Your task to perform on an android device: open app "Walmart Shopping & Grocery" (install if not already installed) Image 0: 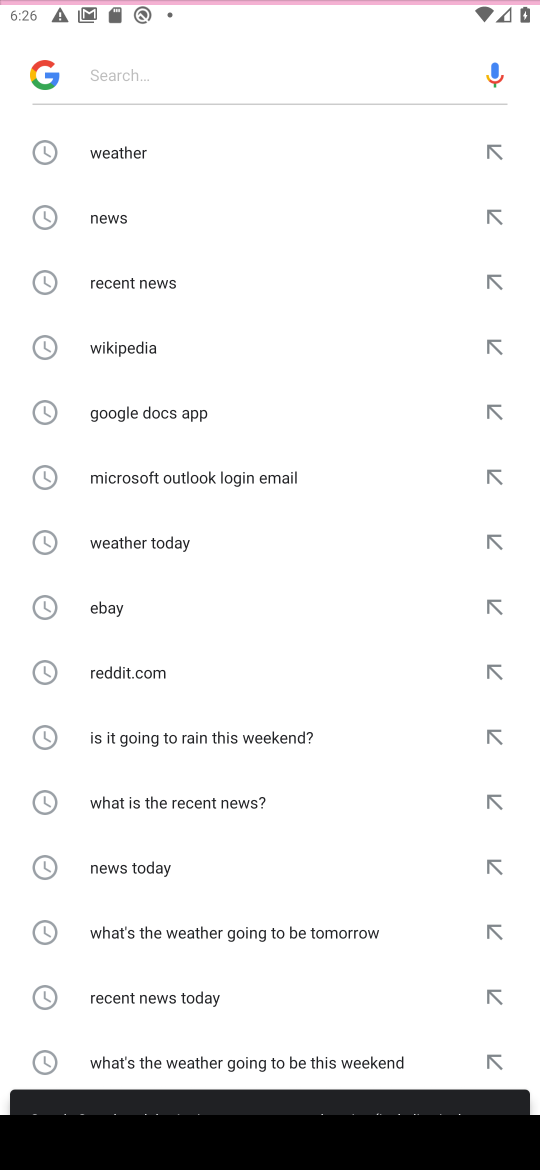
Step 0: press home button
Your task to perform on an android device: open app "Walmart Shopping & Grocery" (install if not already installed) Image 1: 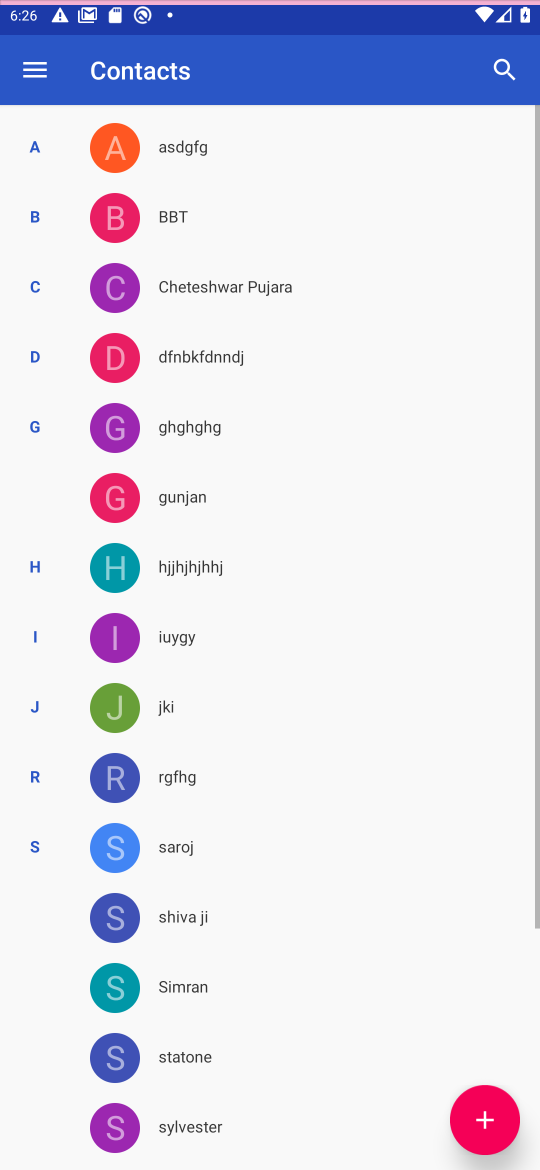
Step 1: press back button
Your task to perform on an android device: open app "Walmart Shopping & Grocery" (install if not already installed) Image 2: 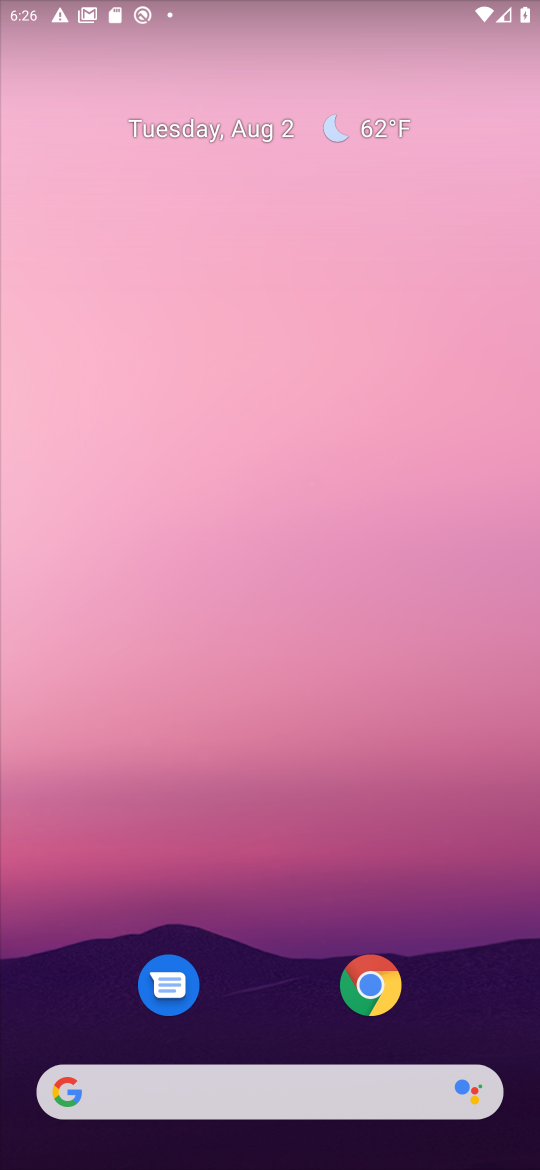
Step 2: drag from (261, 964) to (261, 239)
Your task to perform on an android device: open app "Walmart Shopping & Grocery" (install if not already installed) Image 3: 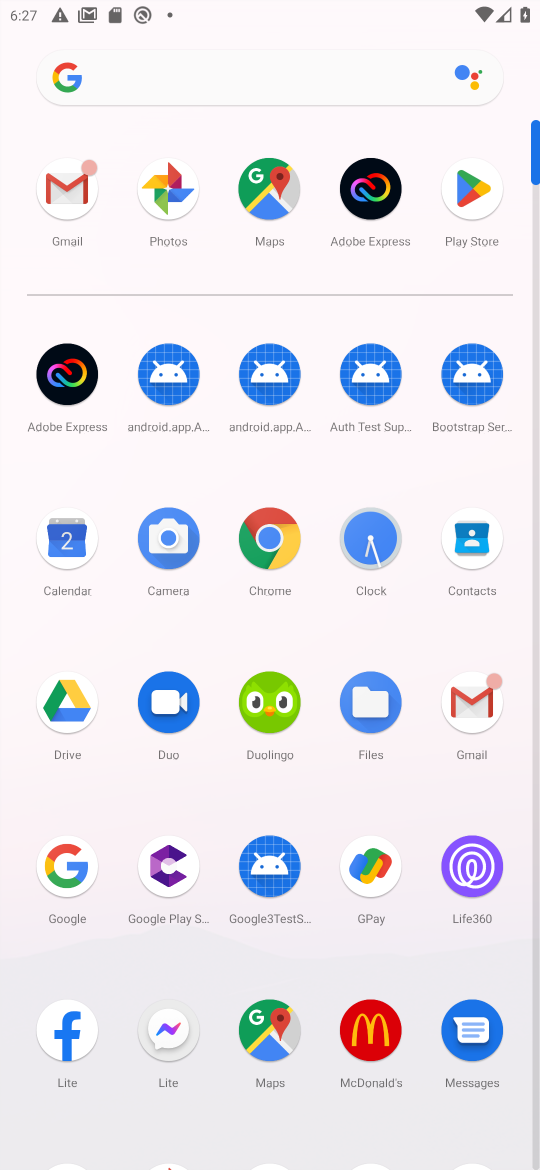
Step 3: click (451, 171)
Your task to perform on an android device: open app "Walmart Shopping & Grocery" (install if not already installed) Image 4: 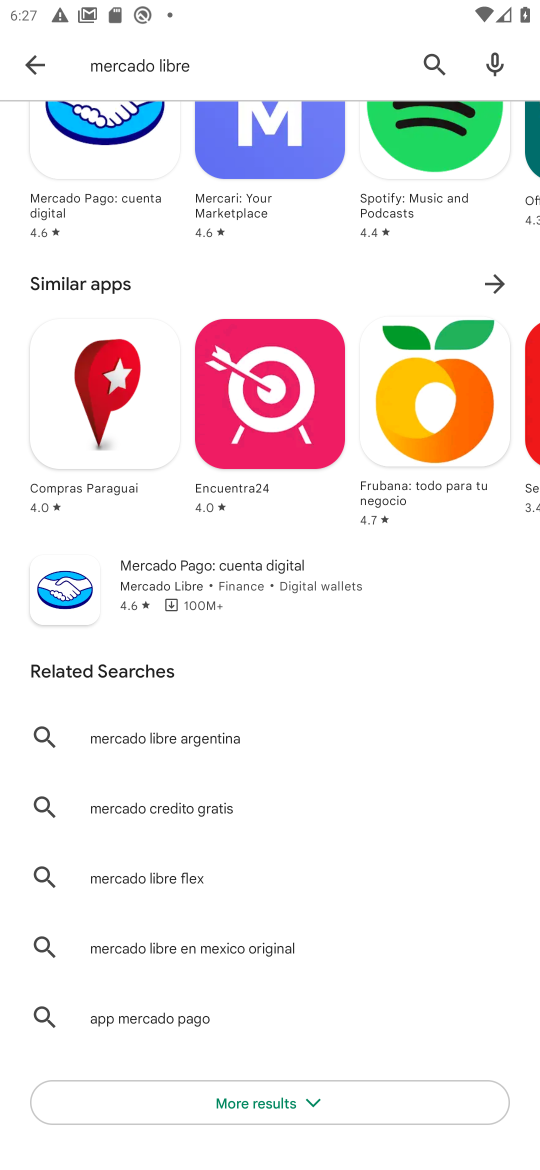
Step 4: click (423, 66)
Your task to perform on an android device: open app "Walmart Shopping & Grocery" (install if not already installed) Image 5: 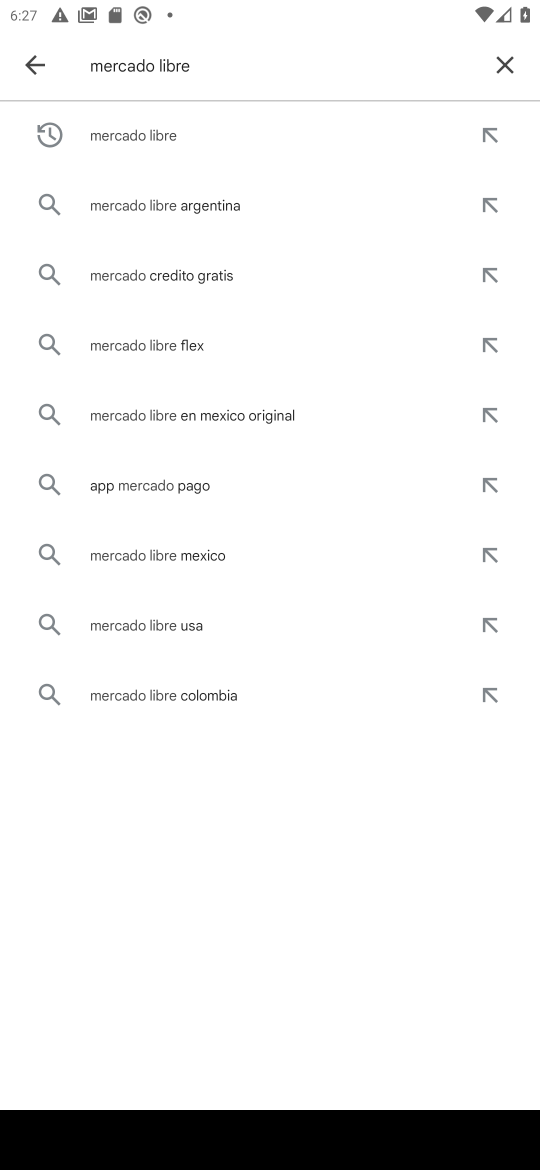
Step 5: click (496, 55)
Your task to perform on an android device: open app "Walmart Shopping & Grocery" (install if not already installed) Image 6: 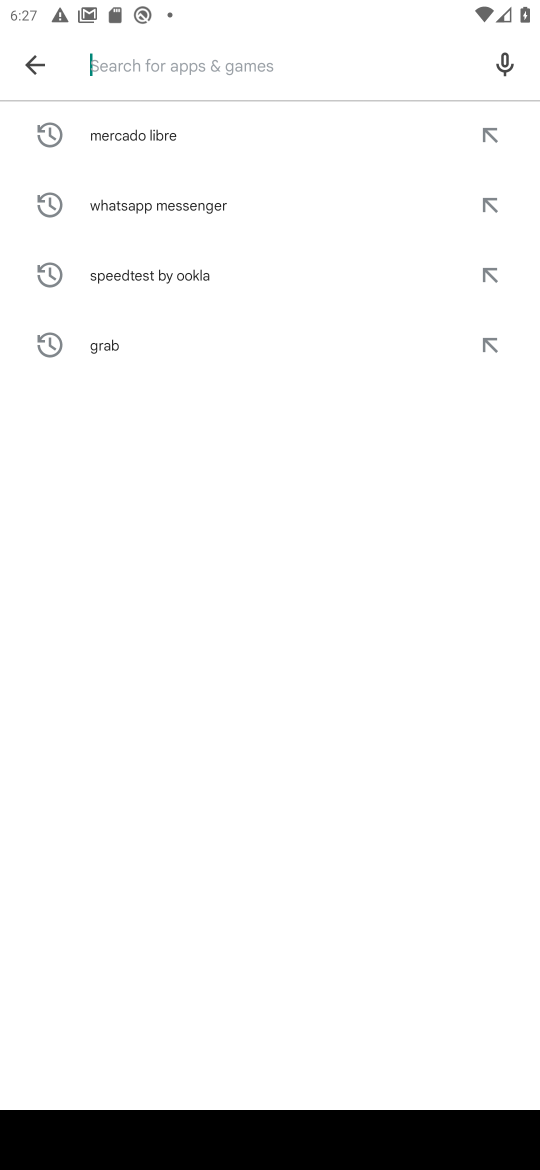
Step 6: type "Walmart Shopping & Grocery"
Your task to perform on an android device: open app "Walmart Shopping & Grocery" (install if not already installed) Image 7: 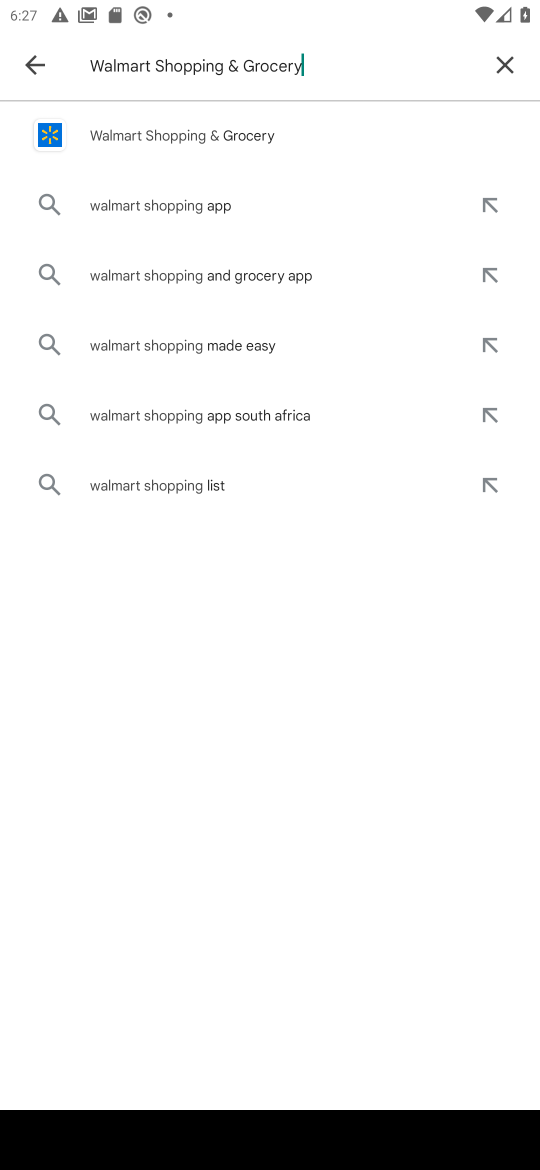
Step 7: type ""
Your task to perform on an android device: open app "Walmart Shopping & Grocery" (install if not already installed) Image 8: 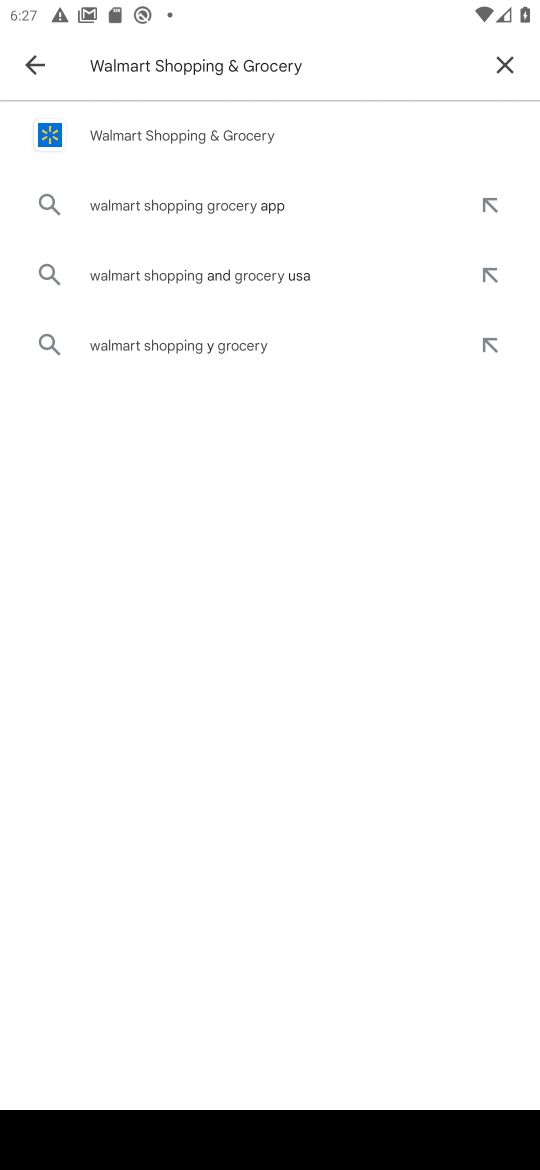
Step 8: click (154, 137)
Your task to perform on an android device: open app "Walmart Shopping & Grocery" (install if not already installed) Image 9: 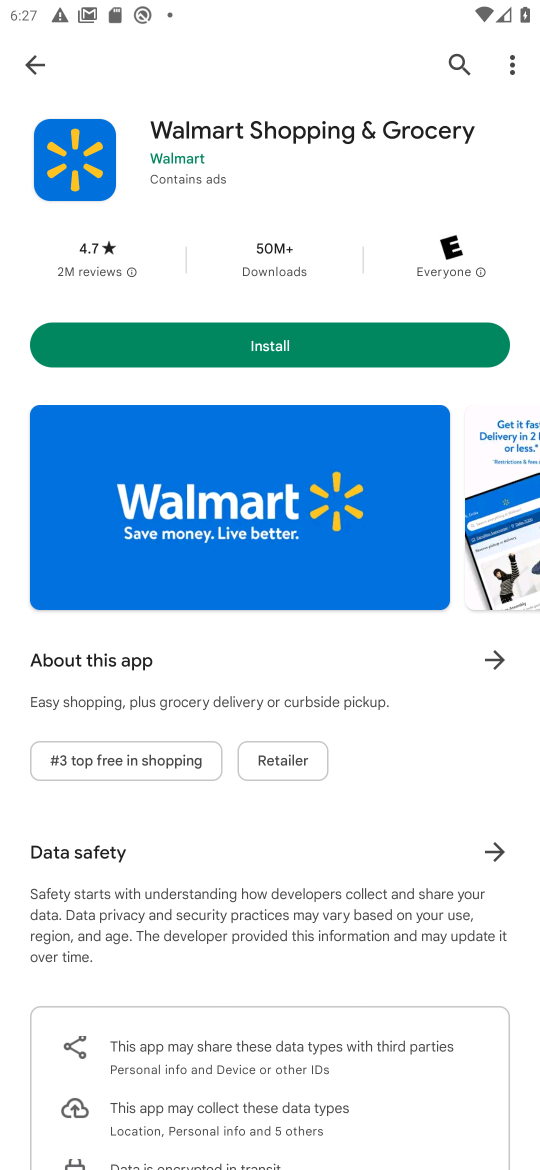
Step 9: click (278, 337)
Your task to perform on an android device: open app "Walmart Shopping & Grocery" (install if not already installed) Image 10: 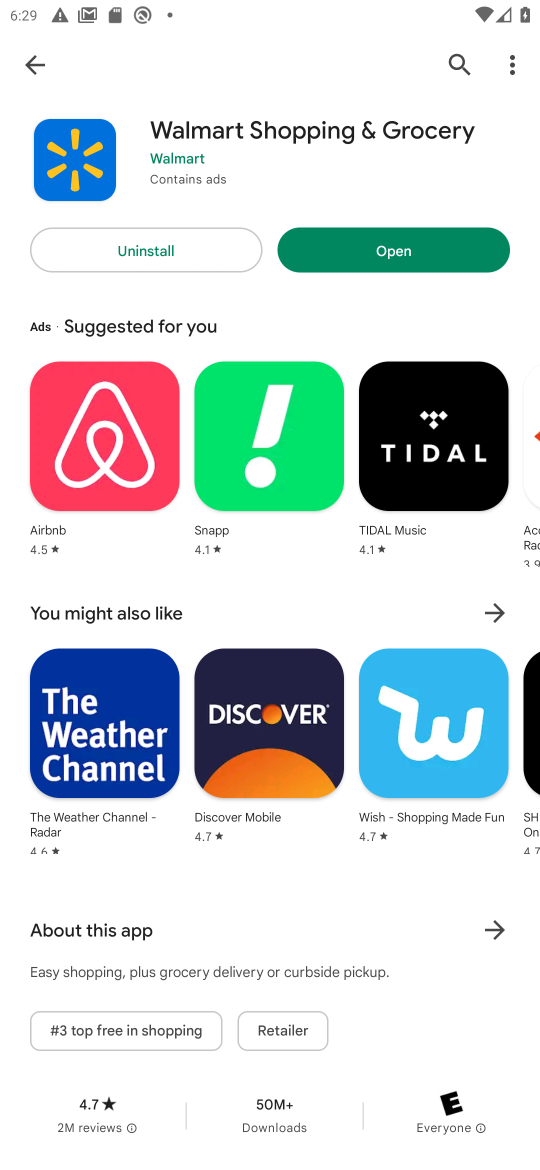
Step 10: click (354, 259)
Your task to perform on an android device: open app "Walmart Shopping & Grocery" (install if not already installed) Image 11: 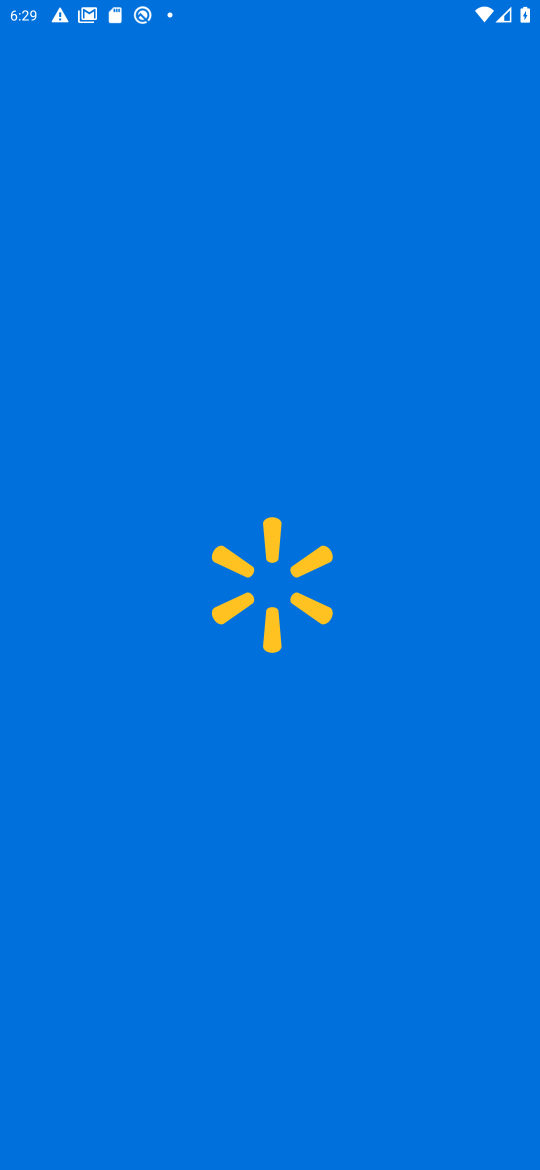
Step 11: task complete